Your task to perform on an android device: turn off sleep mode Image 0: 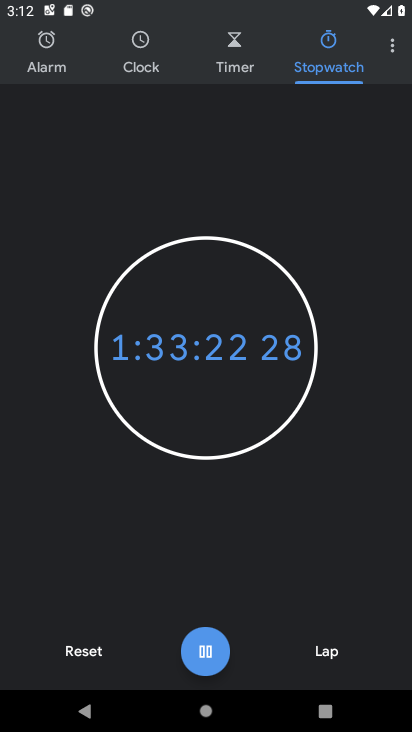
Step 0: press home button
Your task to perform on an android device: turn off sleep mode Image 1: 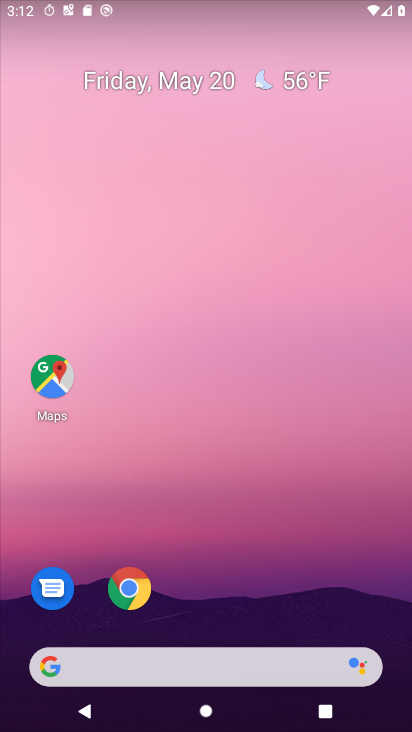
Step 1: task complete